Your task to perform on an android device: turn off wifi Image 0: 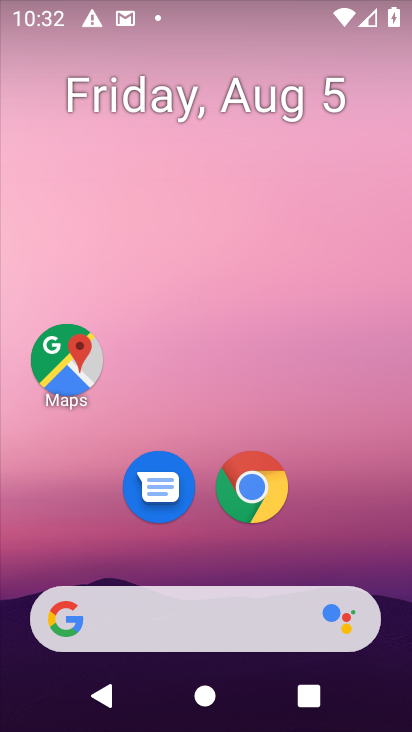
Step 0: drag from (113, 12) to (167, 589)
Your task to perform on an android device: turn off wifi Image 1: 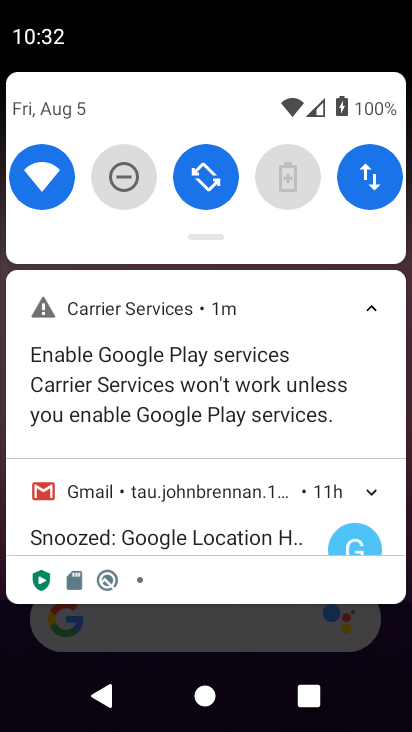
Step 1: click (57, 190)
Your task to perform on an android device: turn off wifi Image 2: 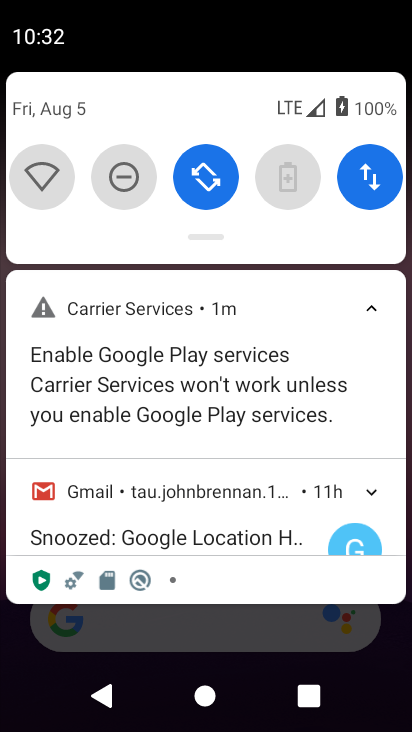
Step 2: task complete